Your task to perform on an android device: Is it going to rain today? Image 0: 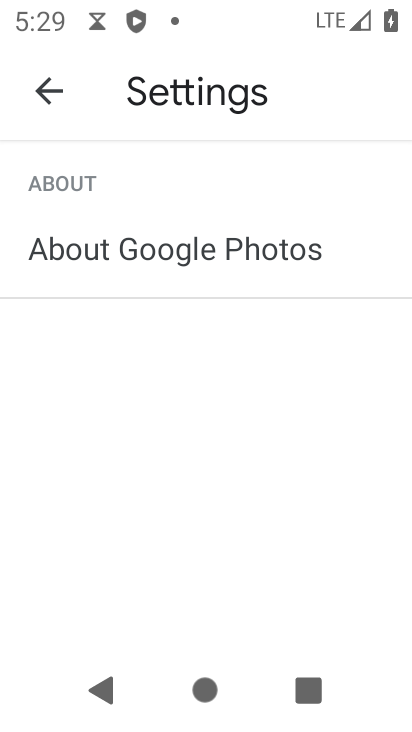
Step 0: press home button
Your task to perform on an android device: Is it going to rain today? Image 1: 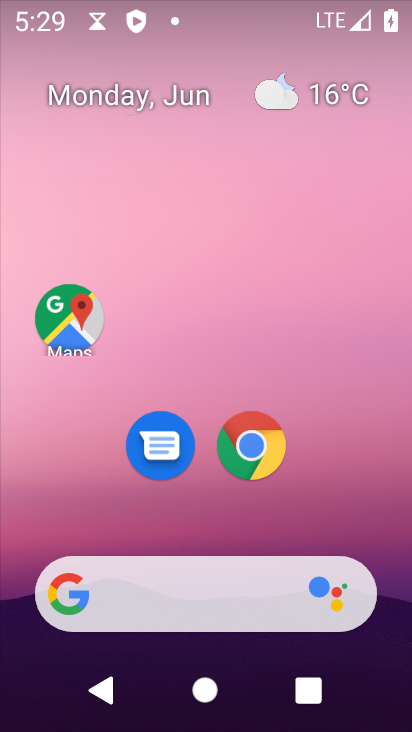
Step 1: drag from (315, 533) to (286, 133)
Your task to perform on an android device: Is it going to rain today? Image 2: 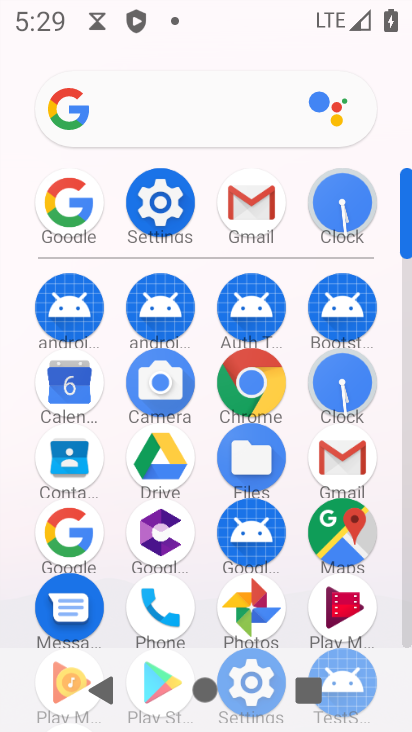
Step 2: click (59, 204)
Your task to perform on an android device: Is it going to rain today? Image 3: 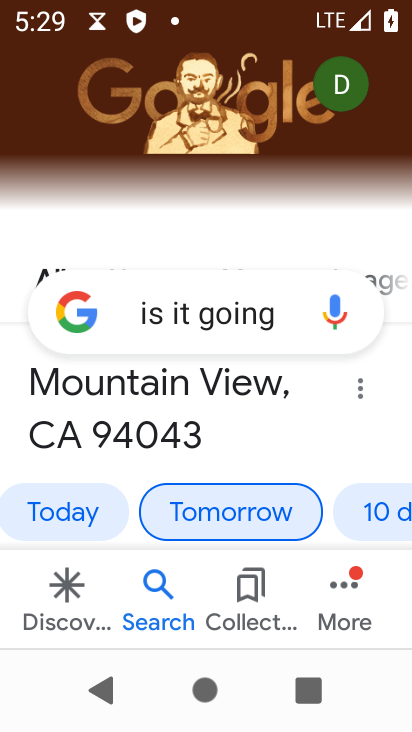
Step 3: click (75, 510)
Your task to perform on an android device: Is it going to rain today? Image 4: 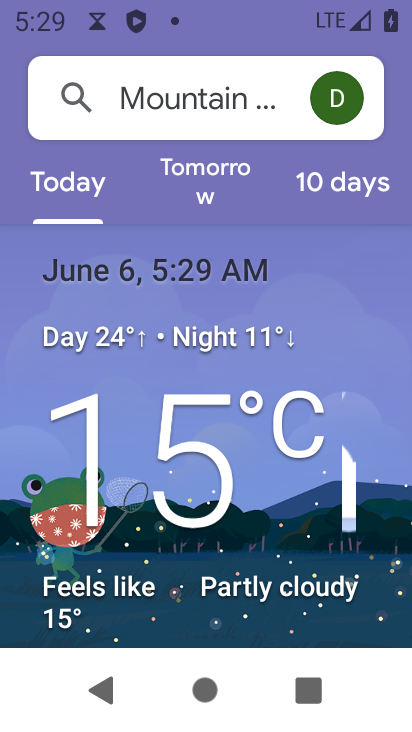
Step 4: task complete